Your task to perform on an android device: delete a single message in the gmail app Image 0: 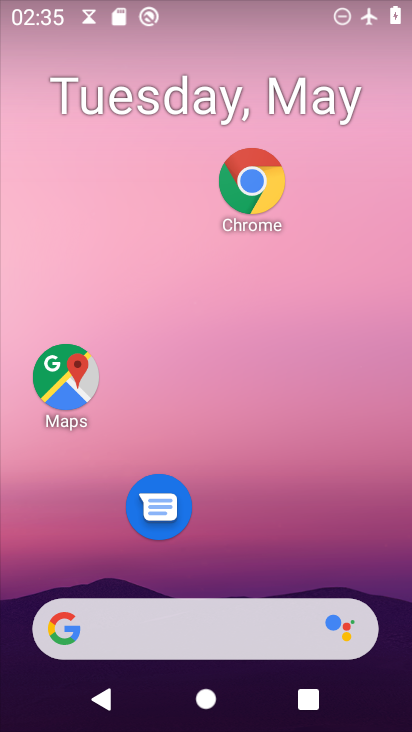
Step 0: drag from (320, 559) to (273, 136)
Your task to perform on an android device: delete a single message in the gmail app Image 1: 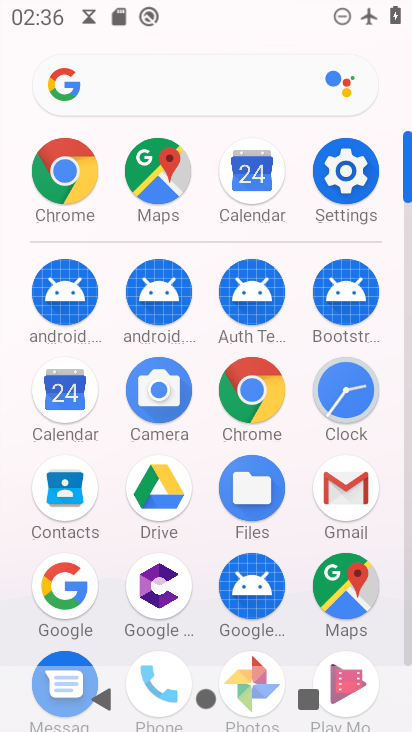
Step 1: click (333, 492)
Your task to perform on an android device: delete a single message in the gmail app Image 2: 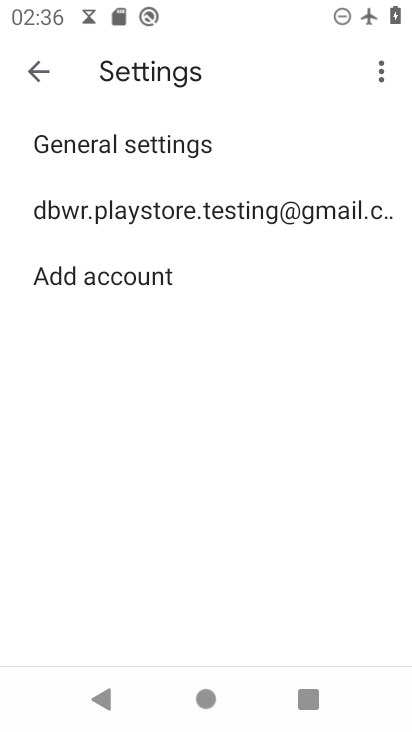
Step 2: click (51, 68)
Your task to perform on an android device: delete a single message in the gmail app Image 3: 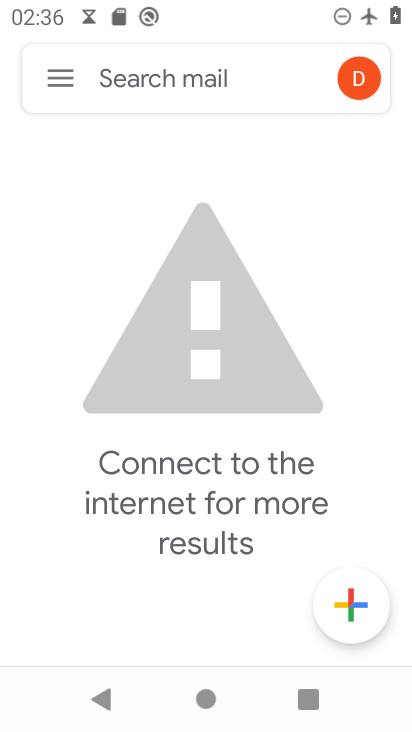
Step 3: click (51, 69)
Your task to perform on an android device: delete a single message in the gmail app Image 4: 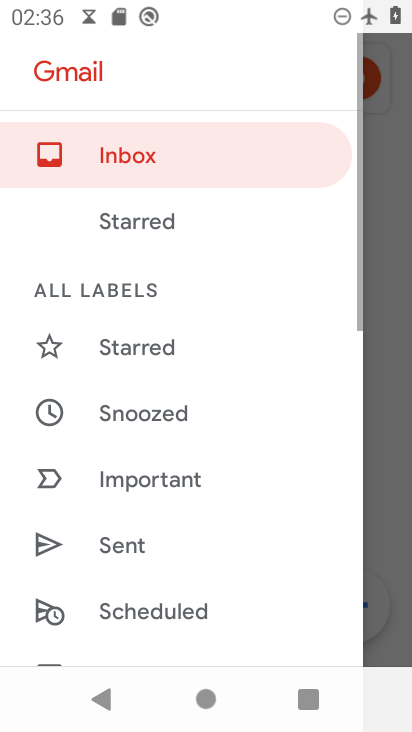
Step 4: drag from (167, 551) to (183, 257)
Your task to perform on an android device: delete a single message in the gmail app Image 5: 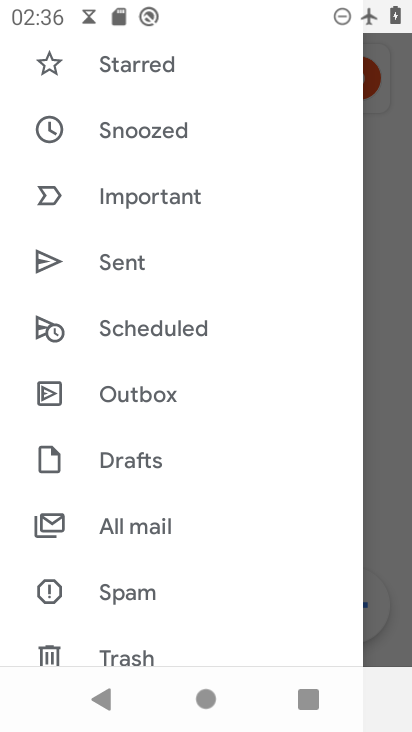
Step 5: click (151, 536)
Your task to perform on an android device: delete a single message in the gmail app Image 6: 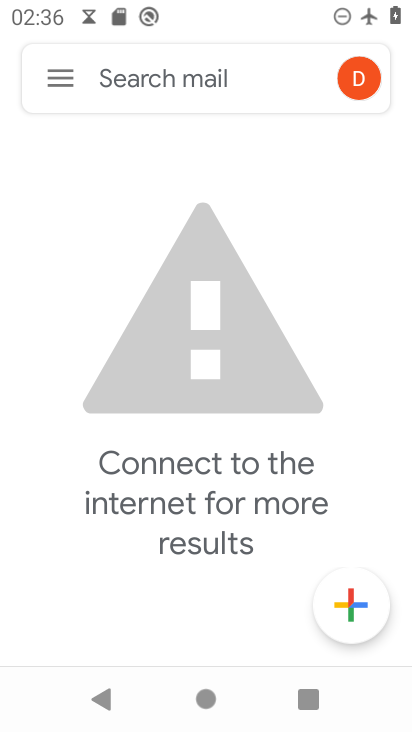
Step 6: task complete